Your task to perform on an android device: open a bookmark in the chrome app Image 0: 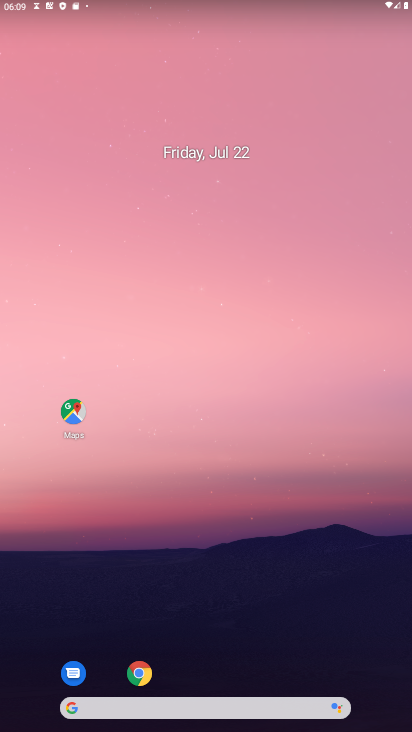
Step 0: press home button
Your task to perform on an android device: open a bookmark in the chrome app Image 1: 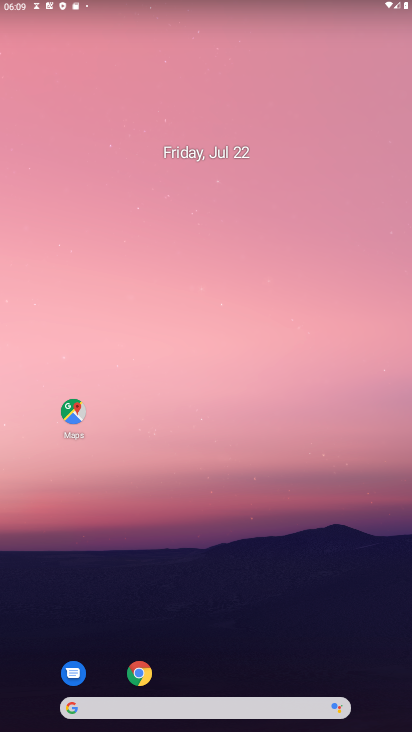
Step 1: drag from (246, 626) to (324, 160)
Your task to perform on an android device: open a bookmark in the chrome app Image 2: 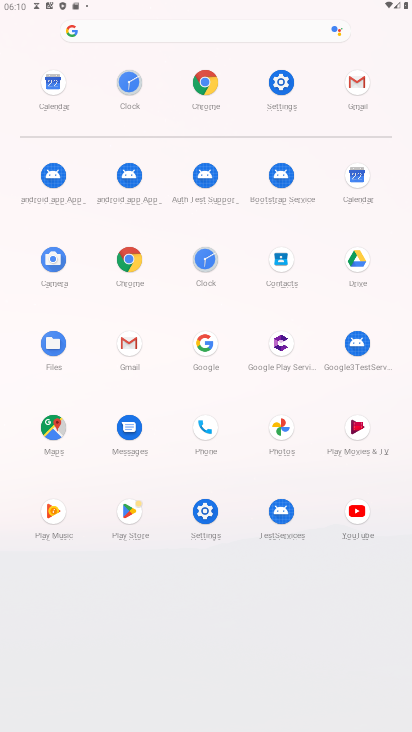
Step 2: click (212, 98)
Your task to perform on an android device: open a bookmark in the chrome app Image 3: 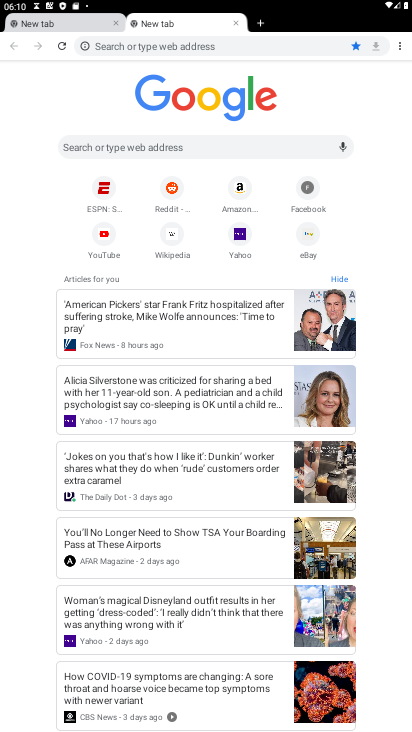
Step 3: drag from (403, 53) to (342, 92)
Your task to perform on an android device: open a bookmark in the chrome app Image 4: 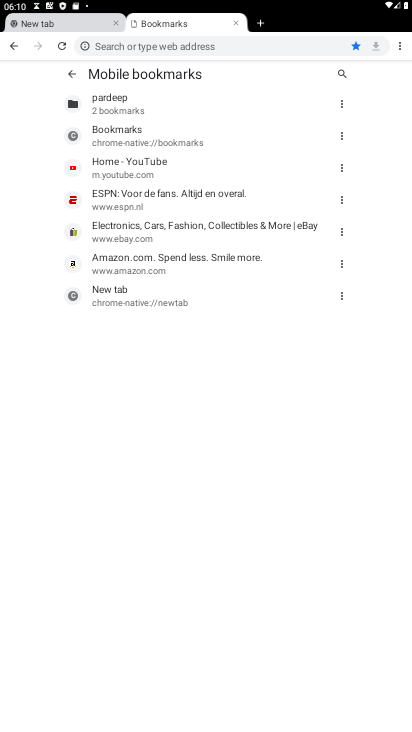
Step 4: click (122, 195)
Your task to perform on an android device: open a bookmark in the chrome app Image 5: 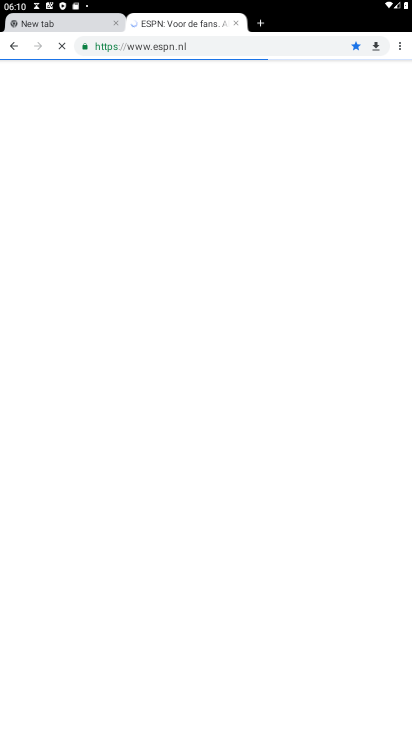
Step 5: click (129, 209)
Your task to perform on an android device: open a bookmark in the chrome app Image 6: 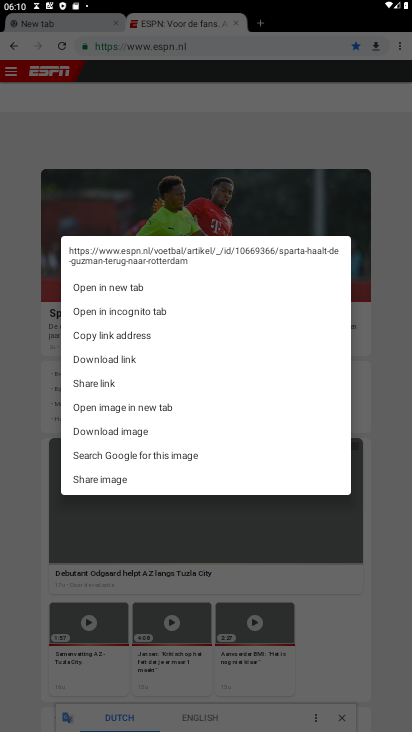
Step 6: click (186, 130)
Your task to perform on an android device: open a bookmark in the chrome app Image 7: 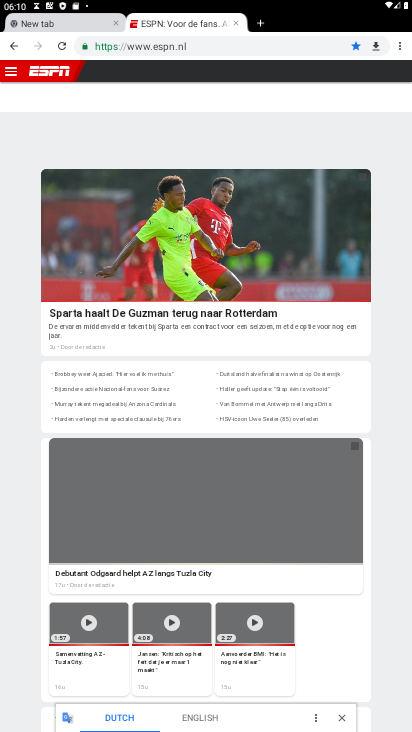
Step 7: task complete